Your task to perform on an android device: Go to settings Image 0: 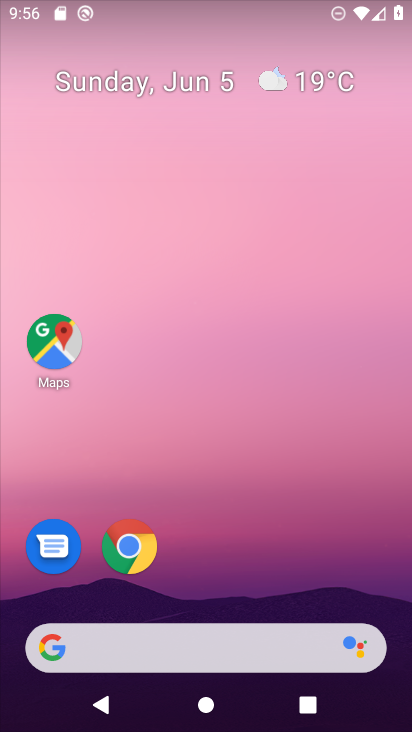
Step 0: drag from (195, 600) to (255, 6)
Your task to perform on an android device: Go to settings Image 1: 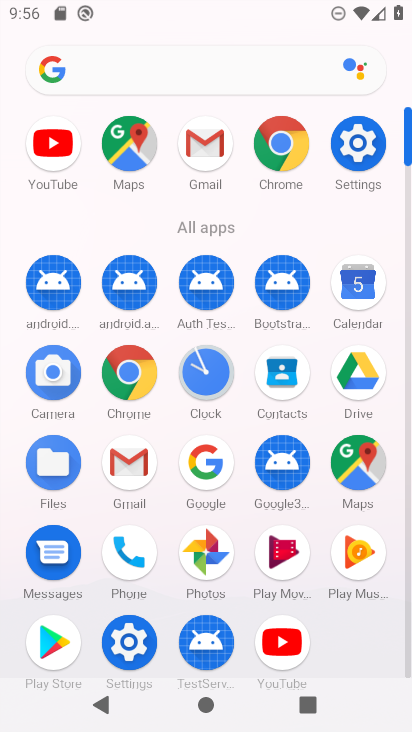
Step 1: click (361, 155)
Your task to perform on an android device: Go to settings Image 2: 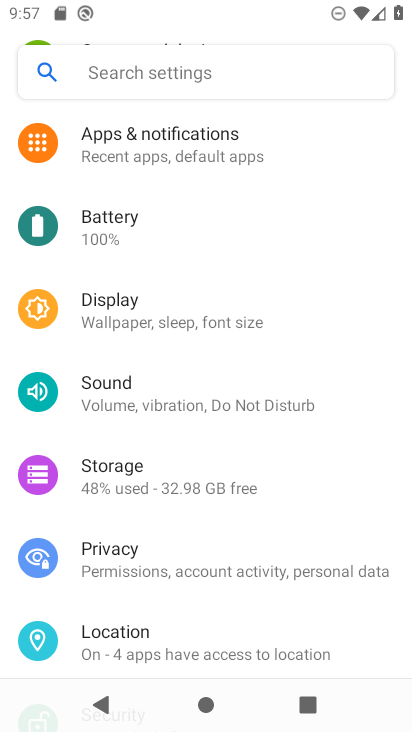
Step 2: task complete